Your task to perform on an android device: toggle data saver in the chrome app Image 0: 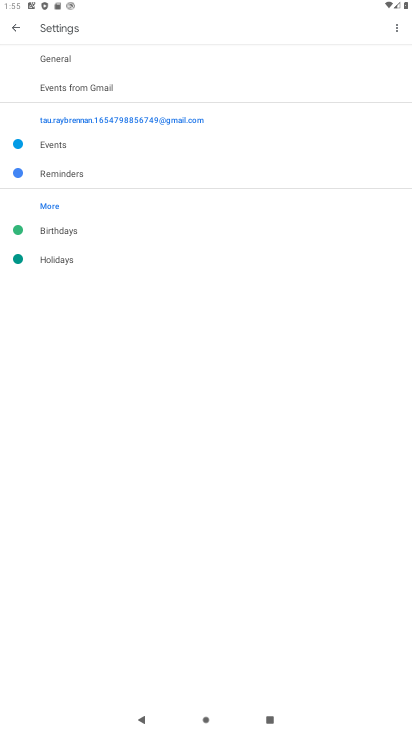
Step 0: press home button
Your task to perform on an android device: toggle data saver in the chrome app Image 1: 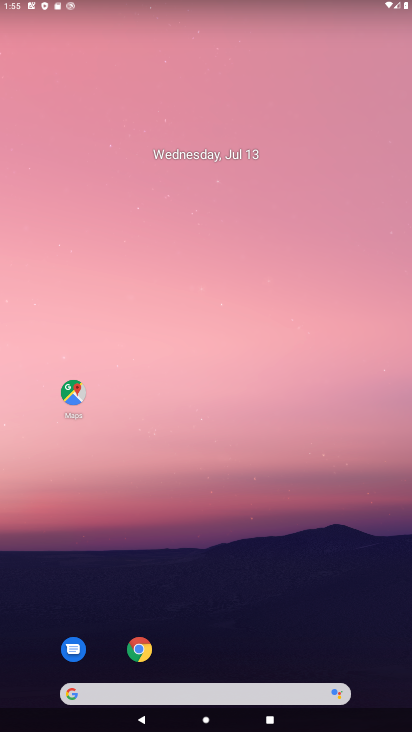
Step 1: click (143, 653)
Your task to perform on an android device: toggle data saver in the chrome app Image 2: 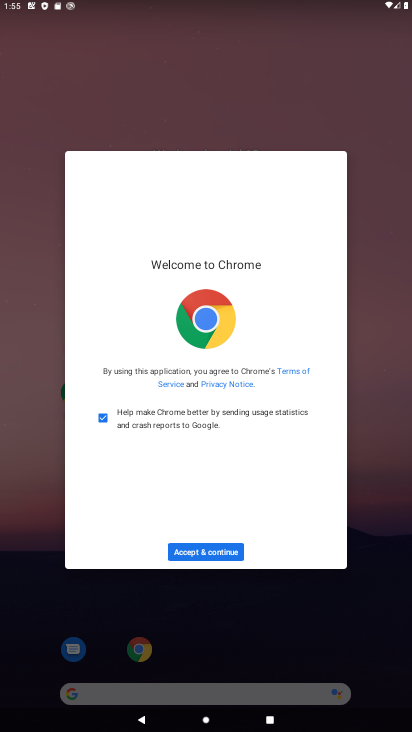
Step 2: click (221, 557)
Your task to perform on an android device: toggle data saver in the chrome app Image 3: 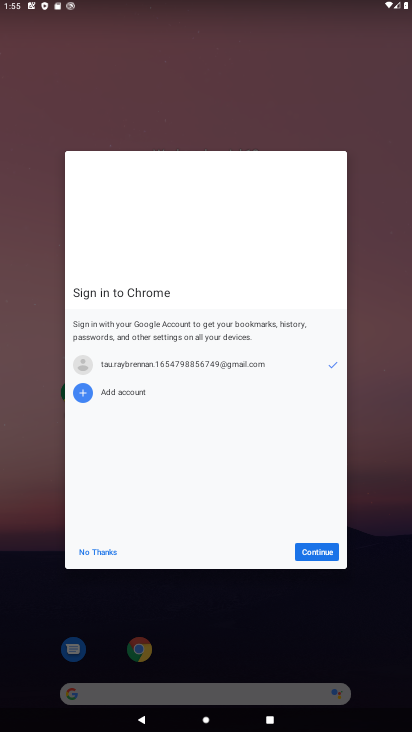
Step 3: click (325, 548)
Your task to perform on an android device: toggle data saver in the chrome app Image 4: 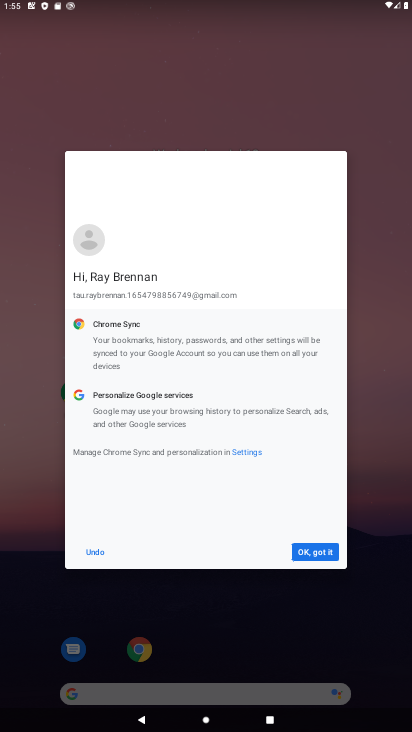
Step 4: click (309, 545)
Your task to perform on an android device: toggle data saver in the chrome app Image 5: 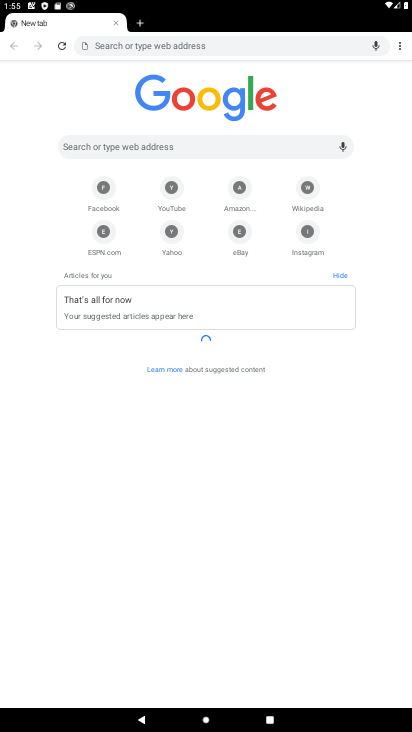
Step 5: click (397, 42)
Your task to perform on an android device: toggle data saver in the chrome app Image 6: 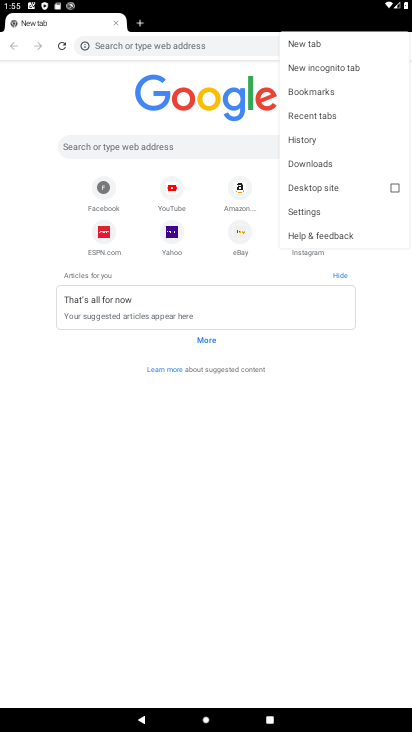
Step 6: click (303, 207)
Your task to perform on an android device: toggle data saver in the chrome app Image 7: 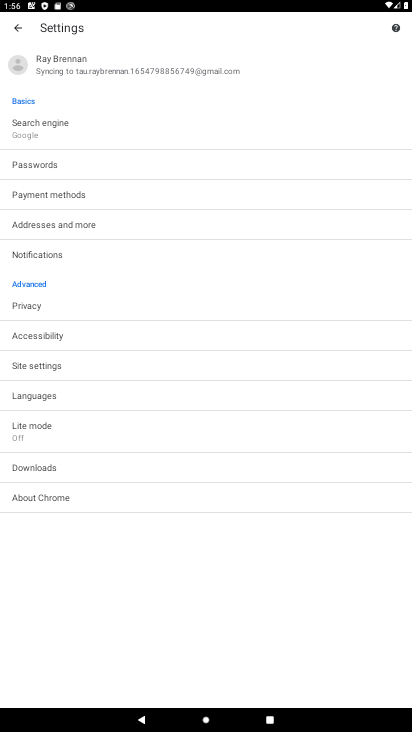
Step 7: click (74, 427)
Your task to perform on an android device: toggle data saver in the chrome app Image 8: 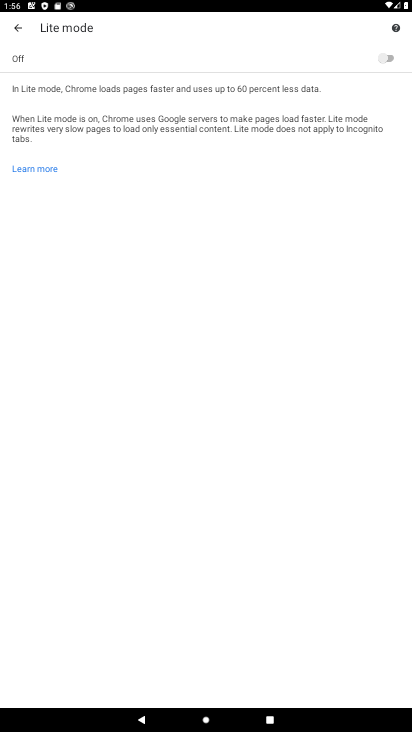
Step 8: click (386, 60)
Your task to perform on an android device: toggle data saver in the chrome app Image 9: 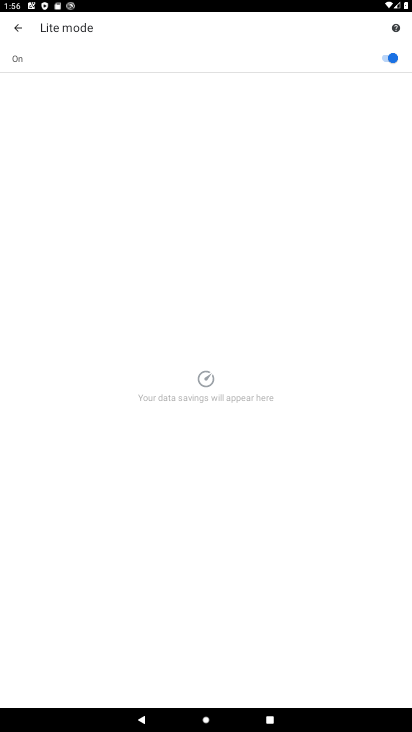
Step 9: task complete